Your task to perform on an android device: turn on priority inbox in the gmail app Image 0: 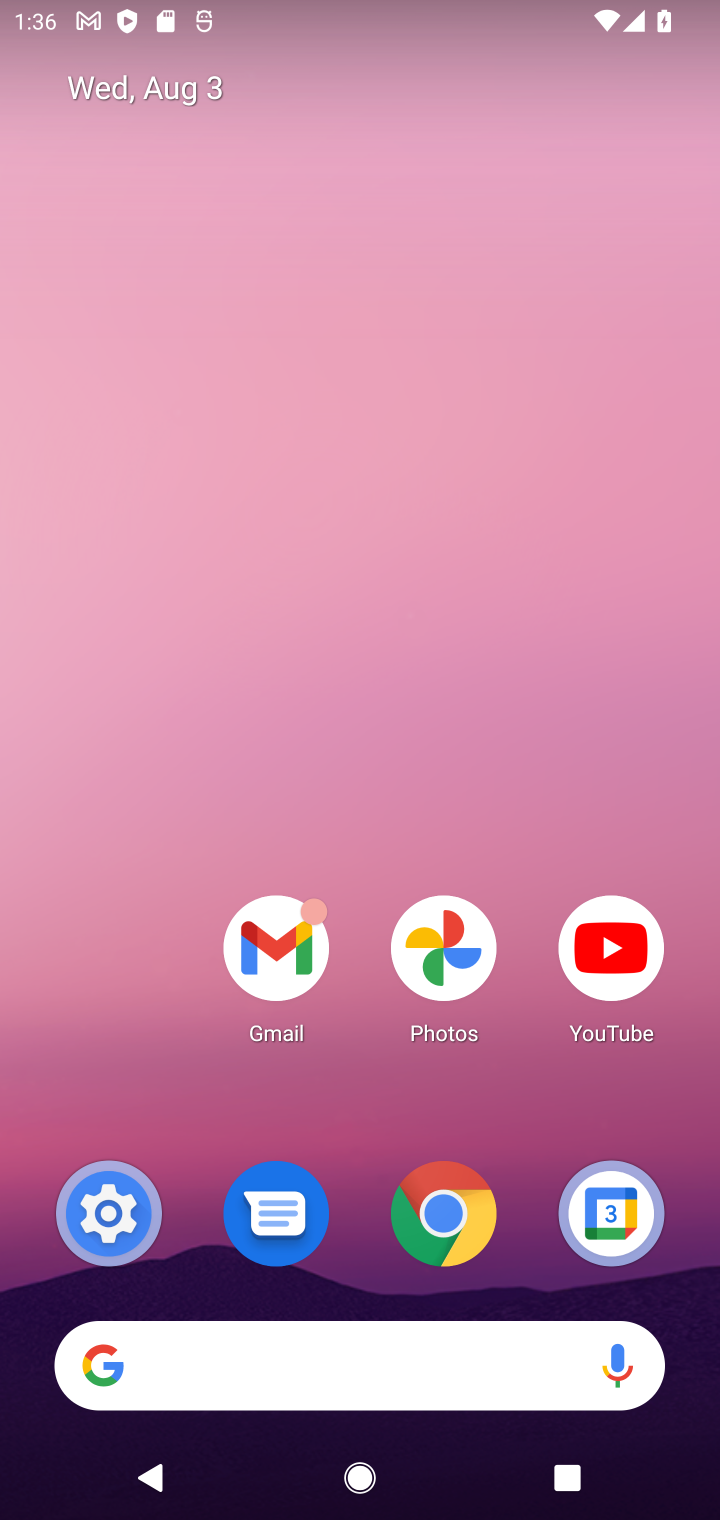
Step 0: drag from (487, 800) to (473, 0)
Your task to perform on an android device: turn on priority inbox in the gmail app Image 1: 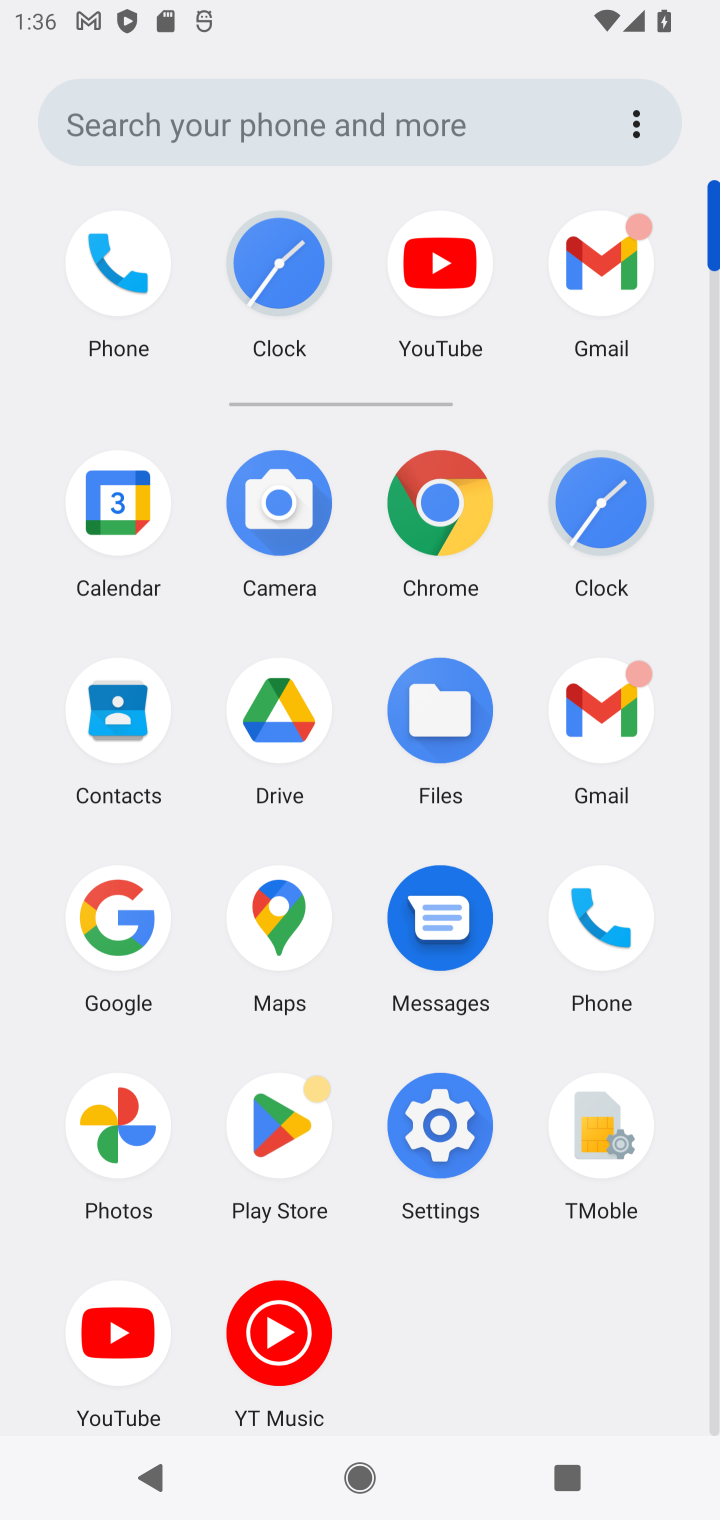
Step 1: click (617, 676)
Your task to perform on an android device: turn on priority inbox in the gmail app Image 2: 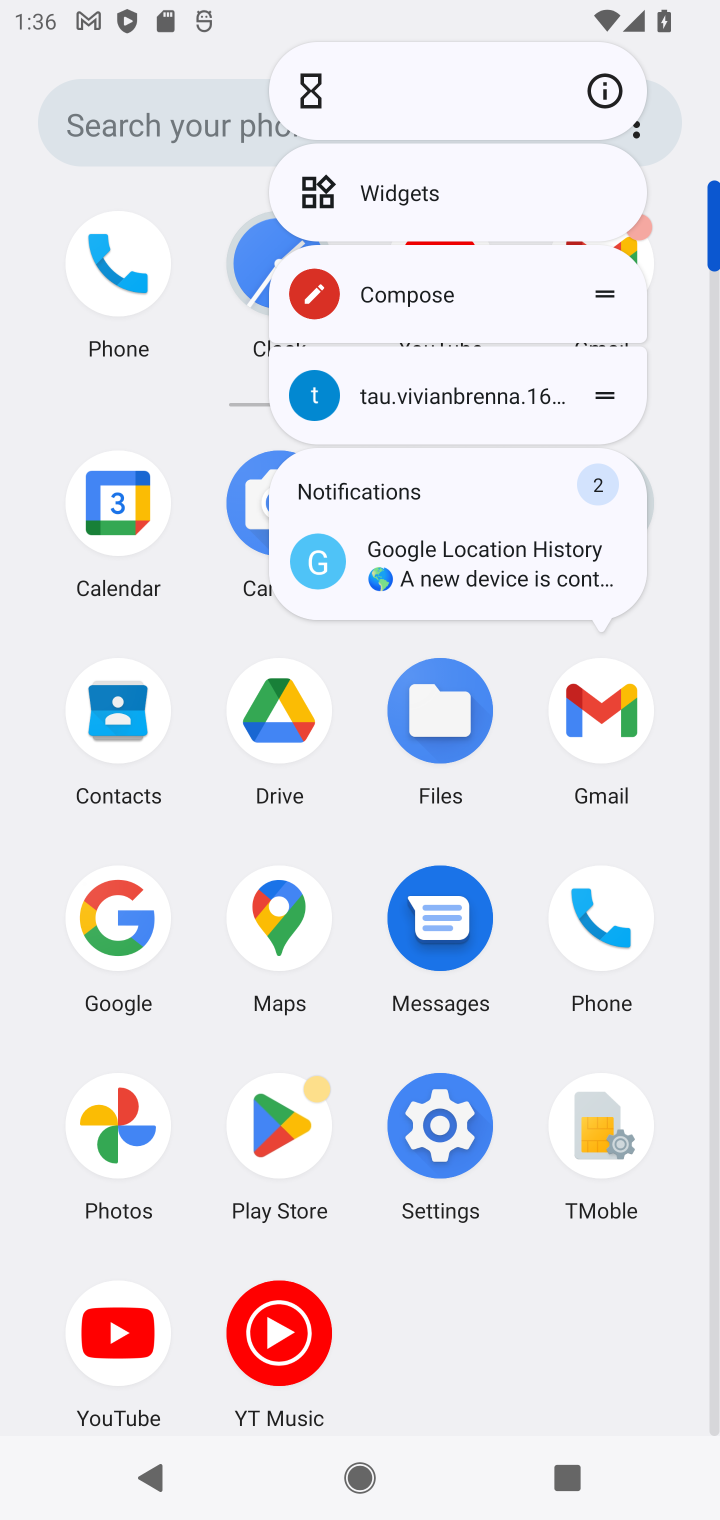
Step 2: click (608, 709)
Your task to perform on an android device: turn on priority inbox in the gmail app Image 3: 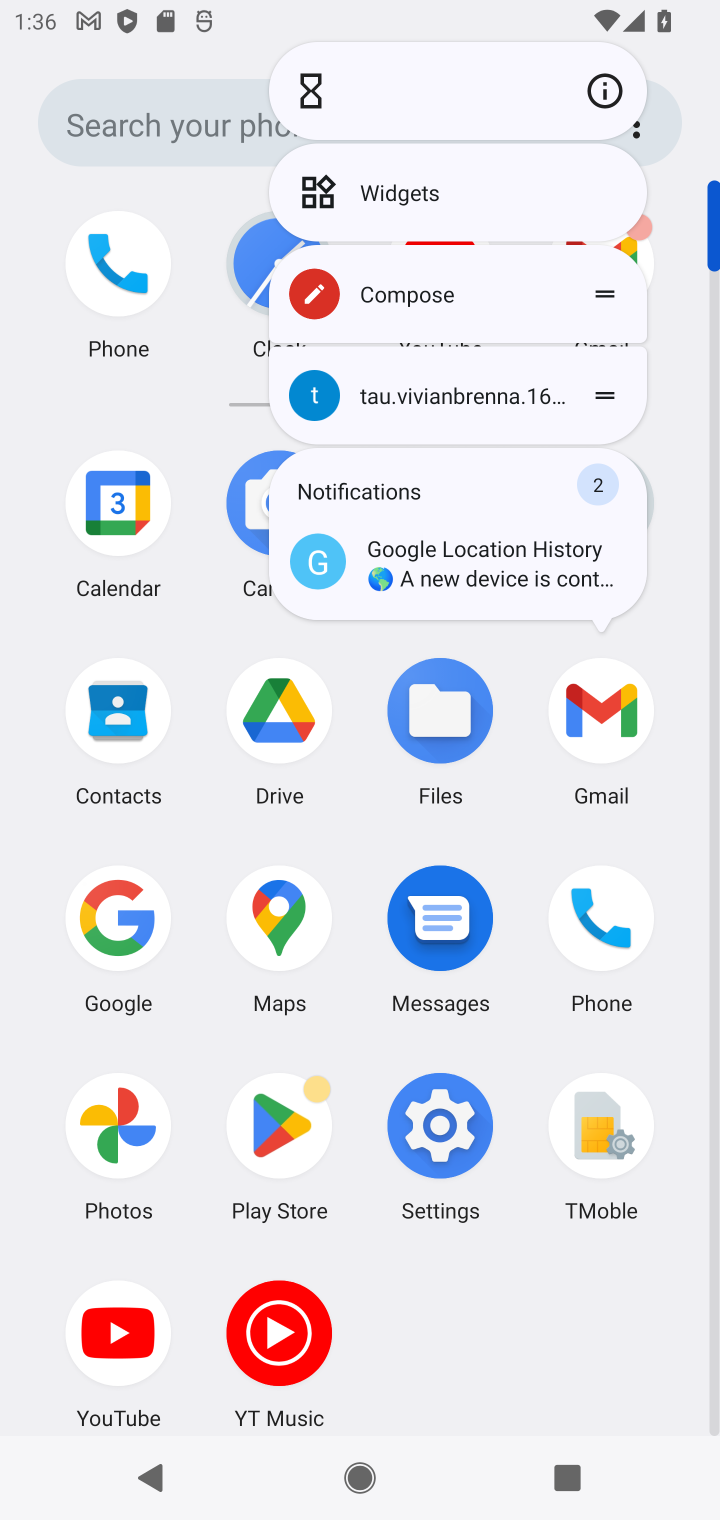
Step 3: click (599, 704)
Your task to perform on an android device: turn on priority inbox in the gmail app Image 4: 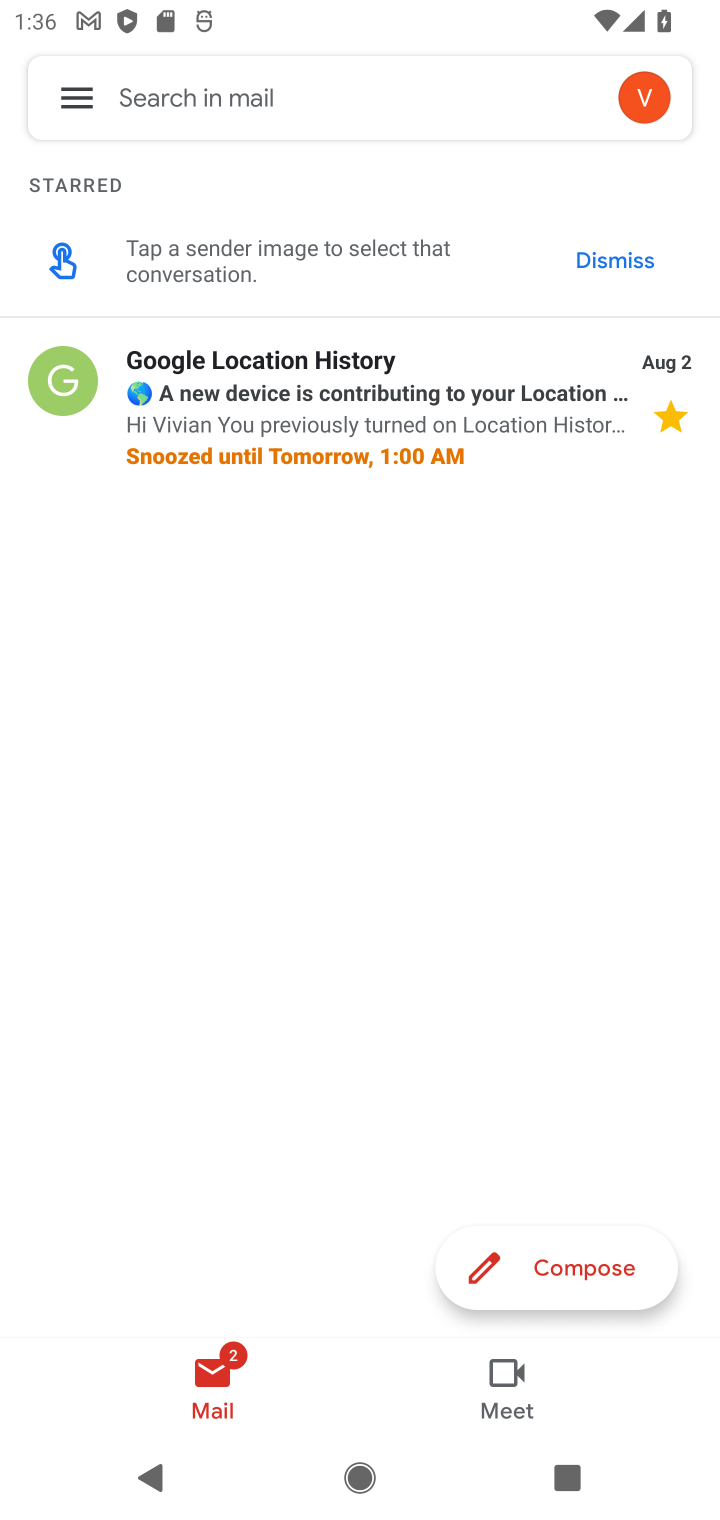
Step 4: click (62, 104)
Your task to perform on an android device: turn on priority inbox in the gmail app Image 5: 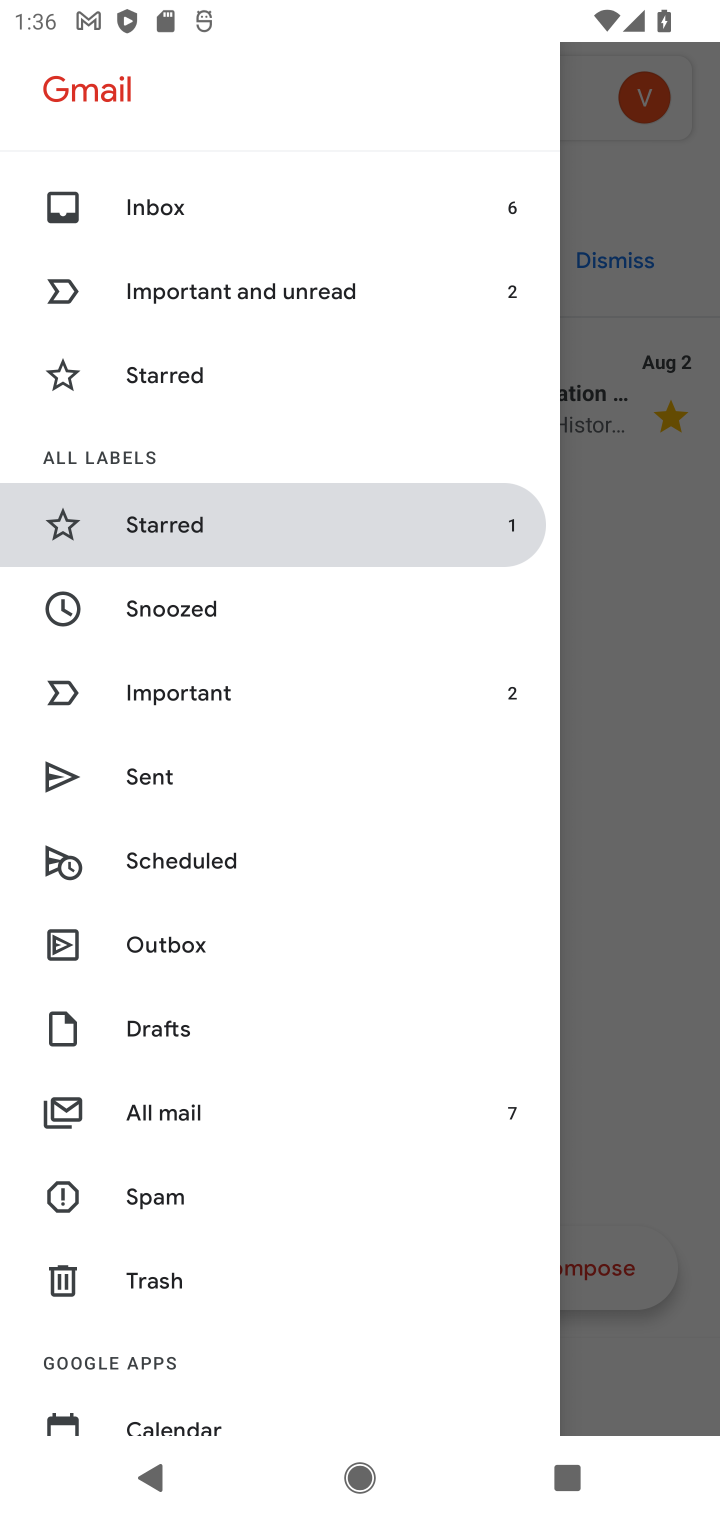
Step 5: drag from (269, 1374) to (395, 207)
Your task to perform on an android device: turn on priority inbox in the gmail app Image 6: 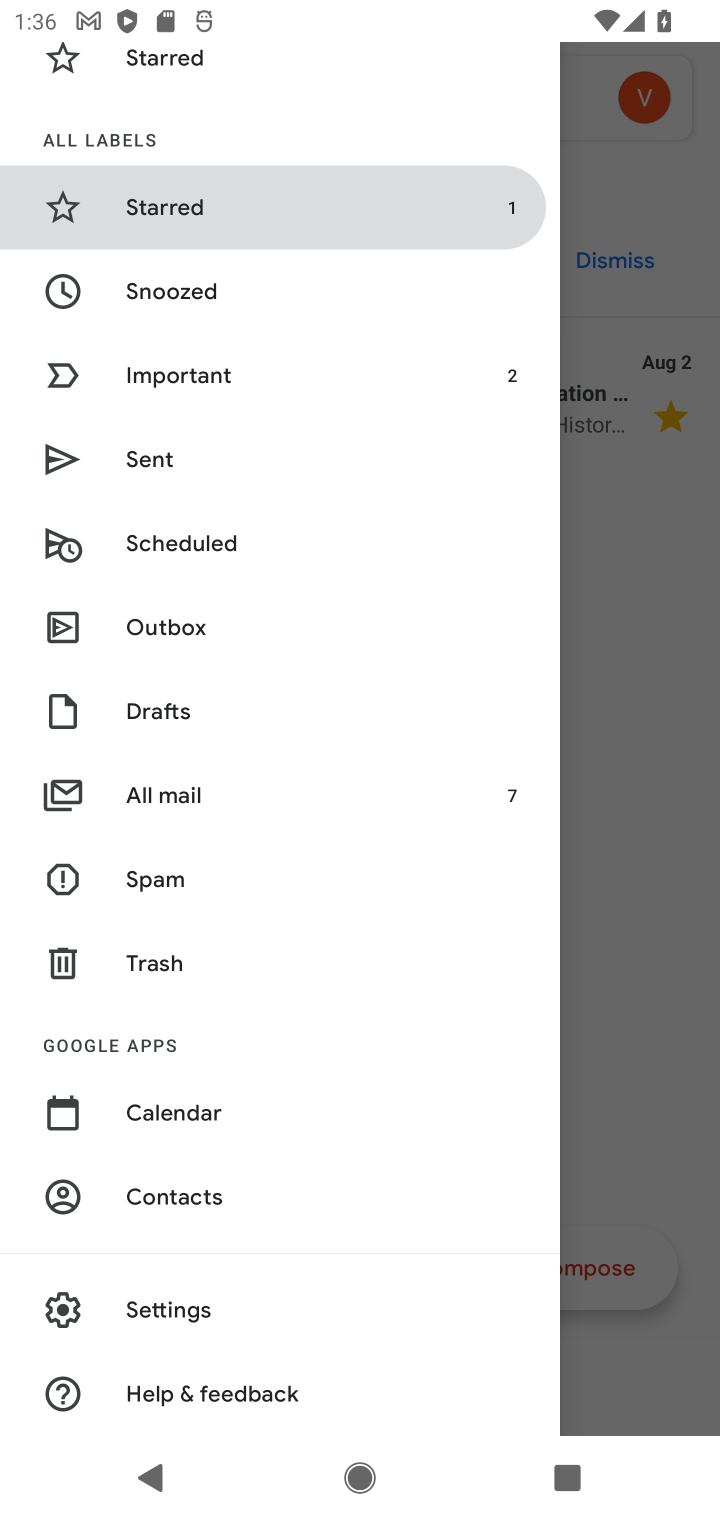
Step 6: click (208, 1303)
Your task to perform on an android device: turn on priority inbox in the gmail app Image 7: 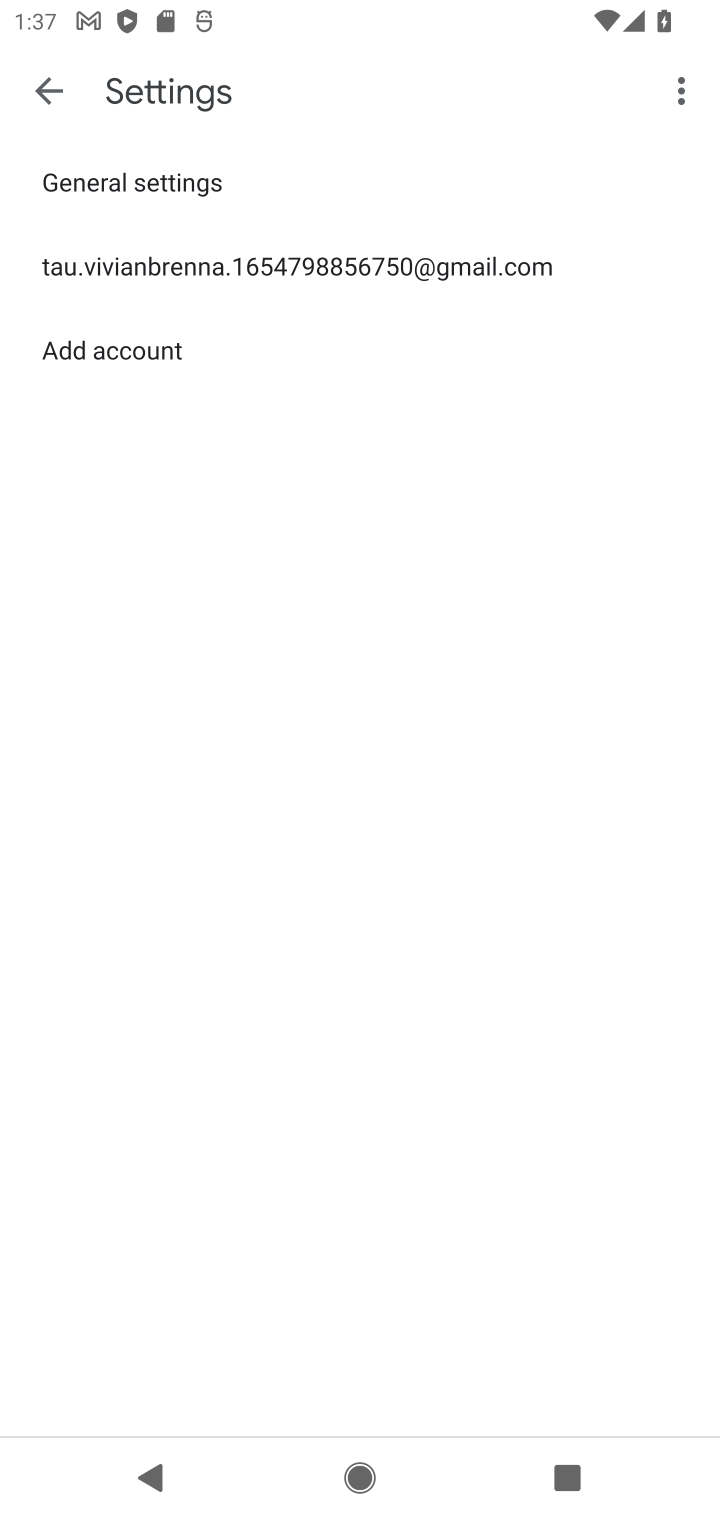
Step 7: click (199, 279)
Your task to perform on an android device: turn on priority inbox in the gmail app Image 8: 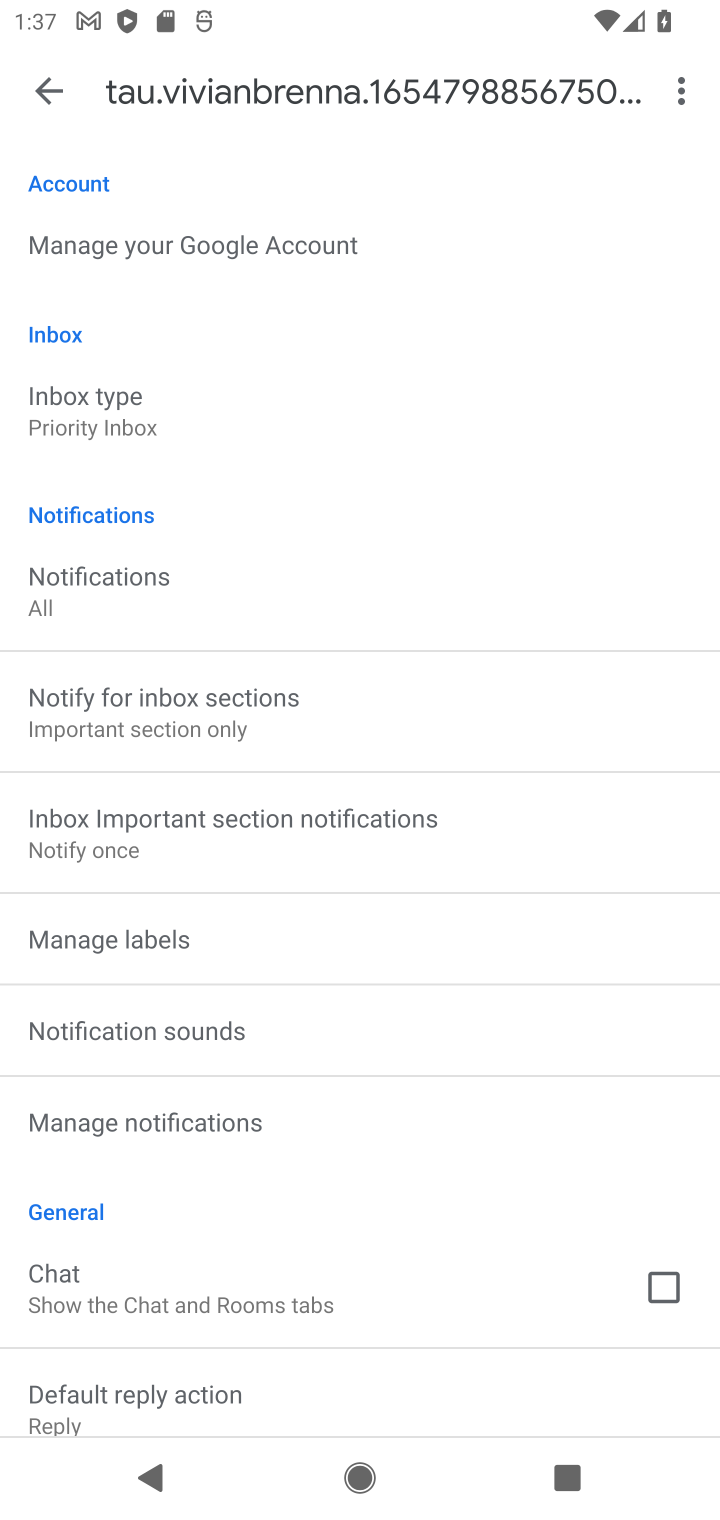
Step 8: task complete